Your task to perform on an android device: install app "Spotify: Music and Podcasts" Image 0: 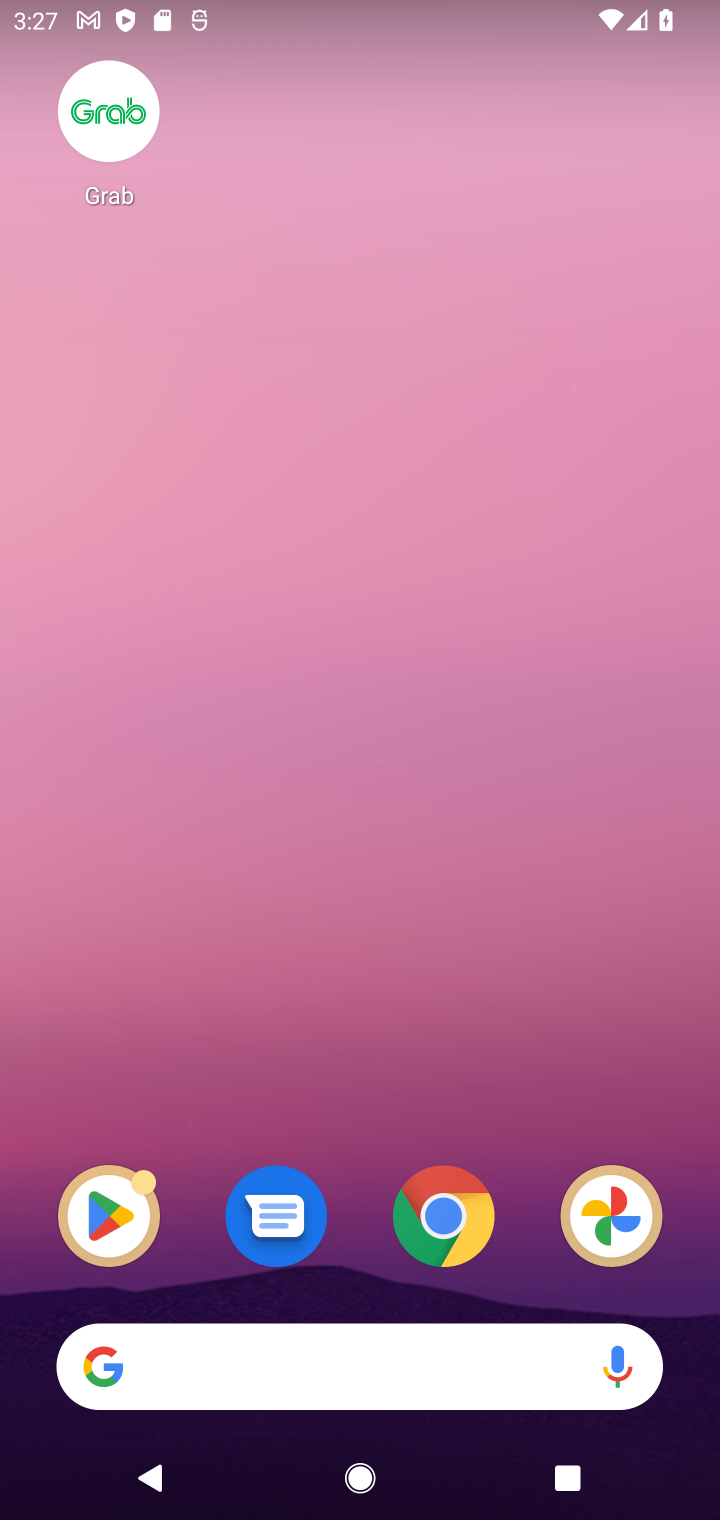
Step 0: drag from (482, 1362) to (414, 232)
Your task to perform on an android device: install app "Spotify: Music and Podcasts" Image 1: 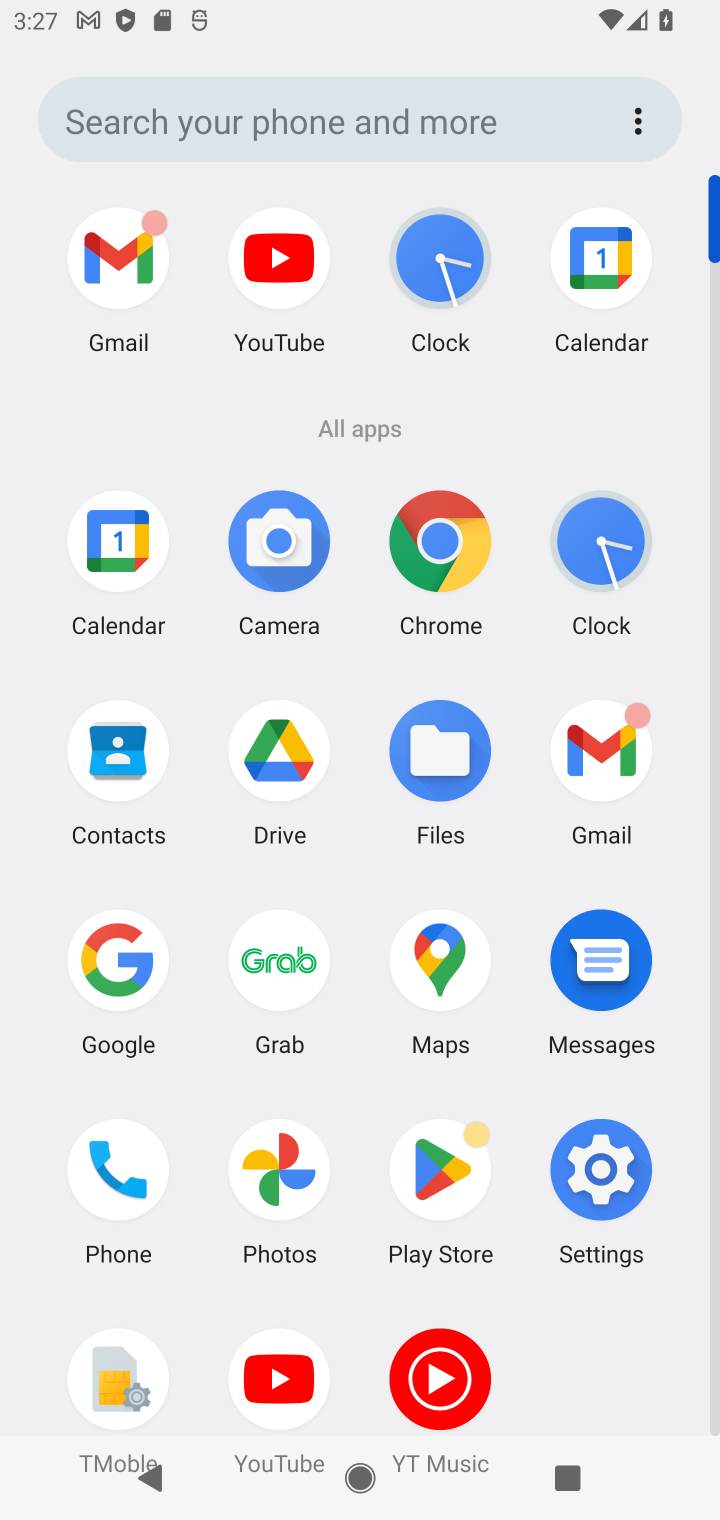
Step 1: click (459, 1197)
Your task to perform on an android device: install app "Spotify: Music and Podcasts" Image 2: 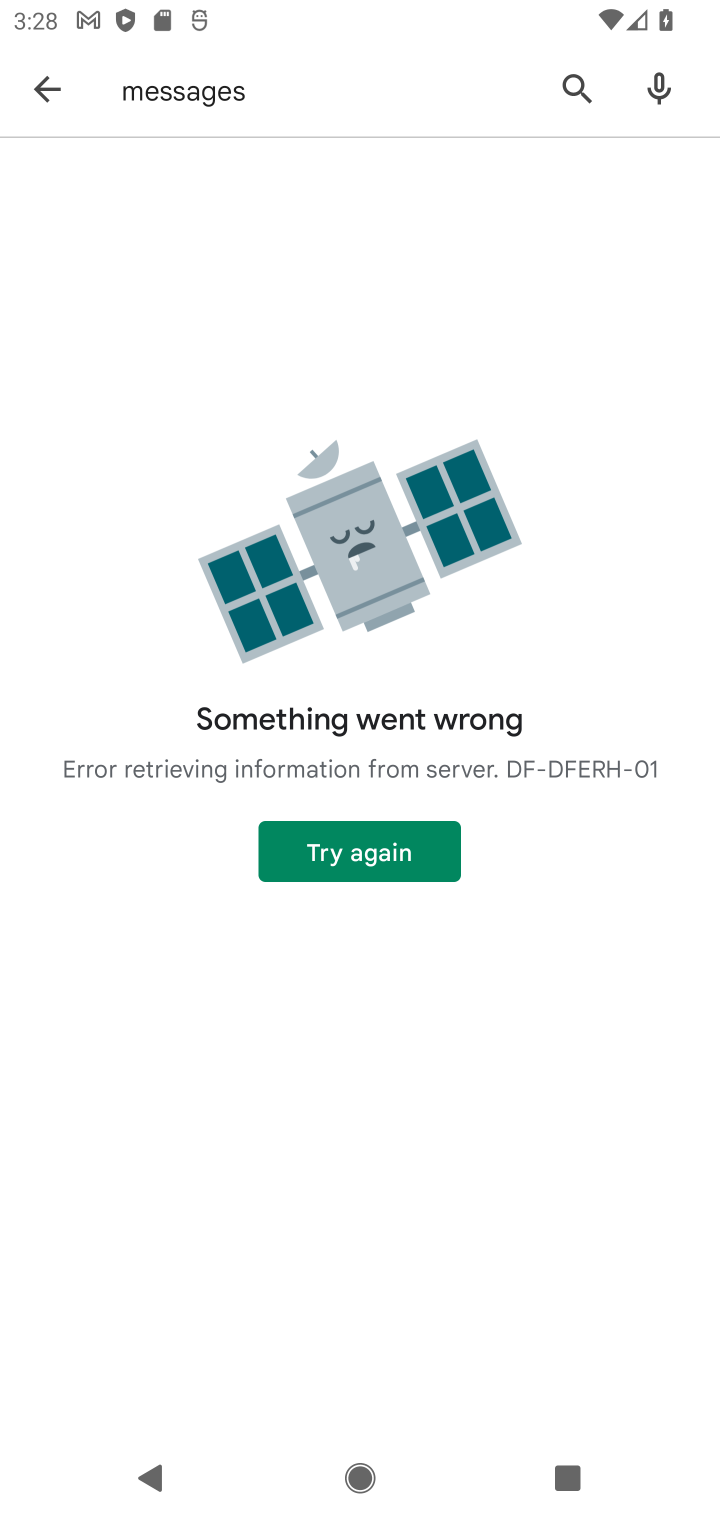
Step 2: press back button
Your task to perform on an android device: install app "Spotify: Music and Podcasts" Image 3: 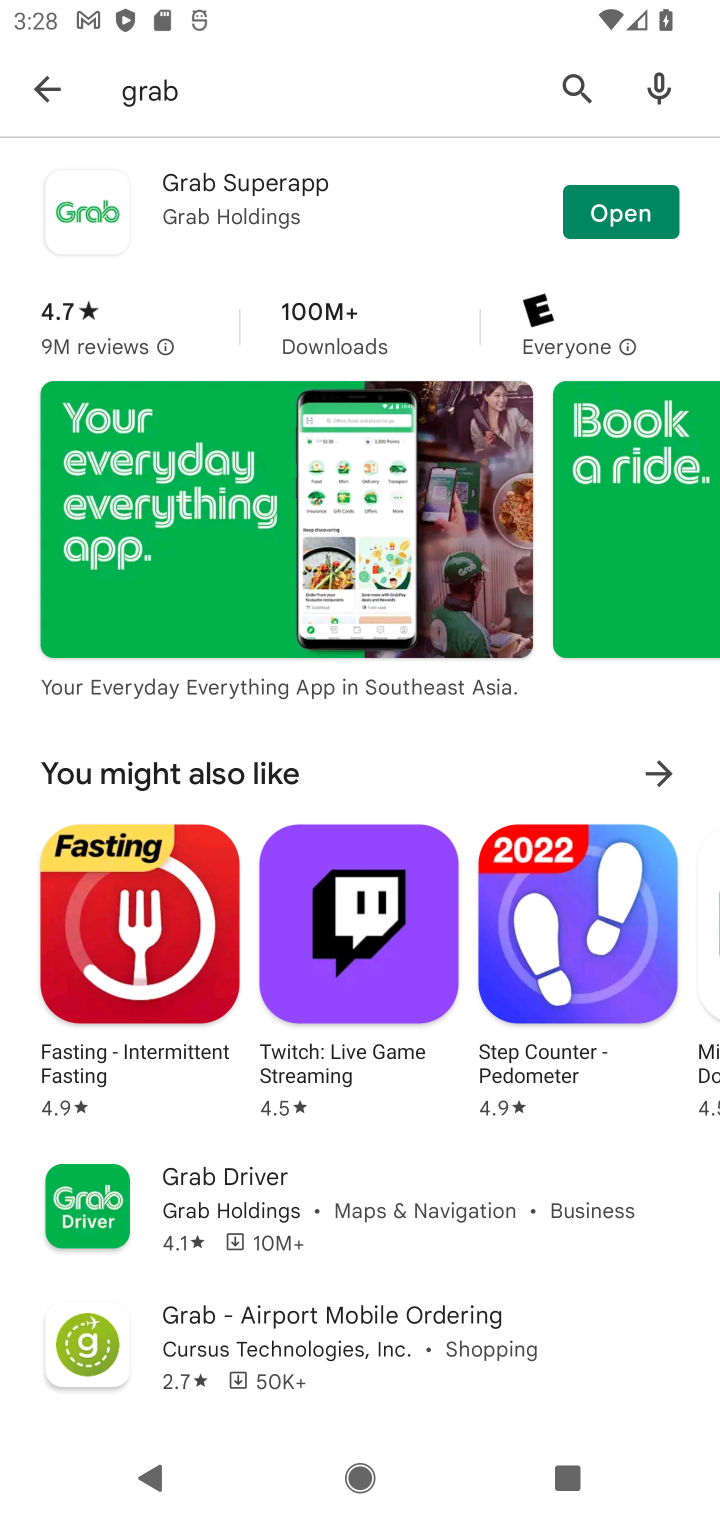
Step 3: click (576, 101)
Your task to perform on an android device: install app "Spotify: Music and Podcasts" Image 4: 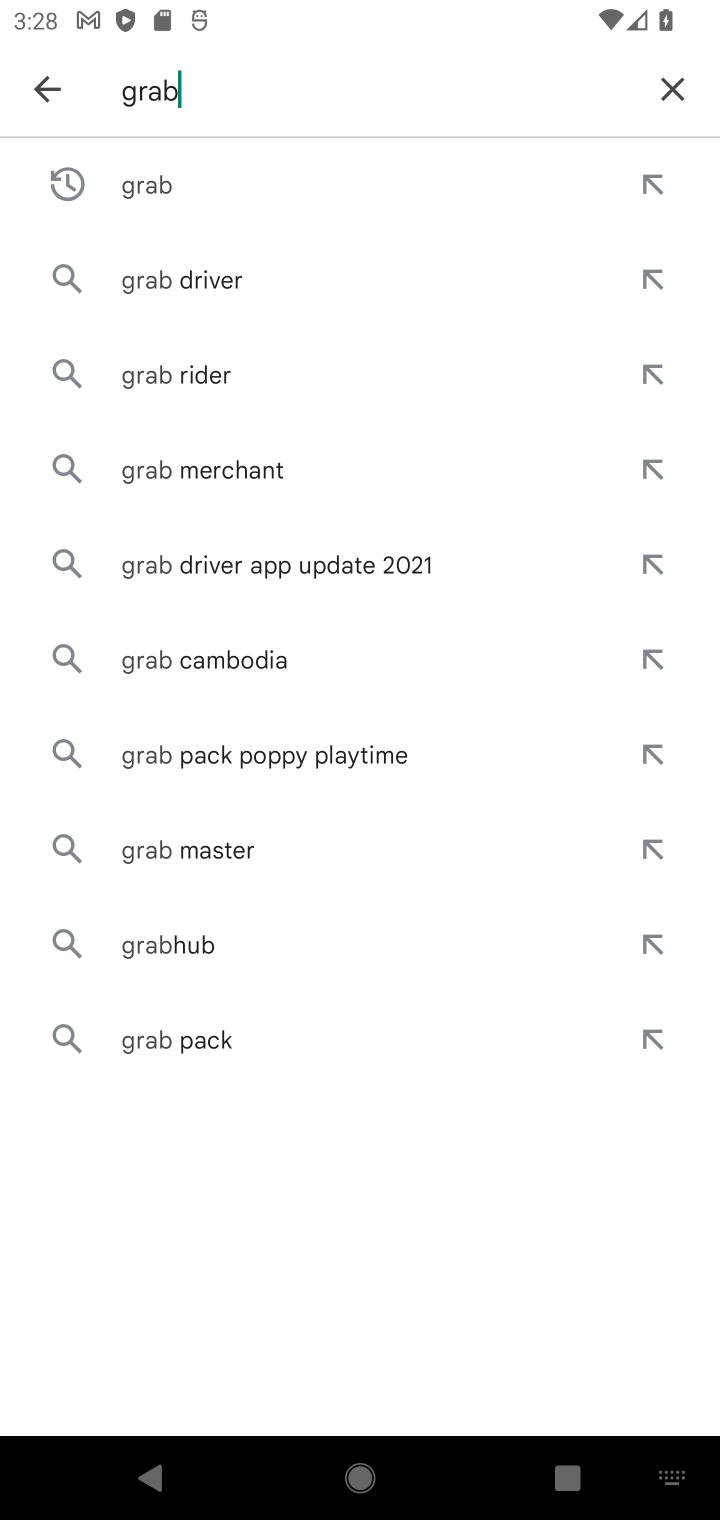
Step 4: click (658, 79)
Your task to perform on an android device: install app "Spotify: Music and Podcasts" Image 5: 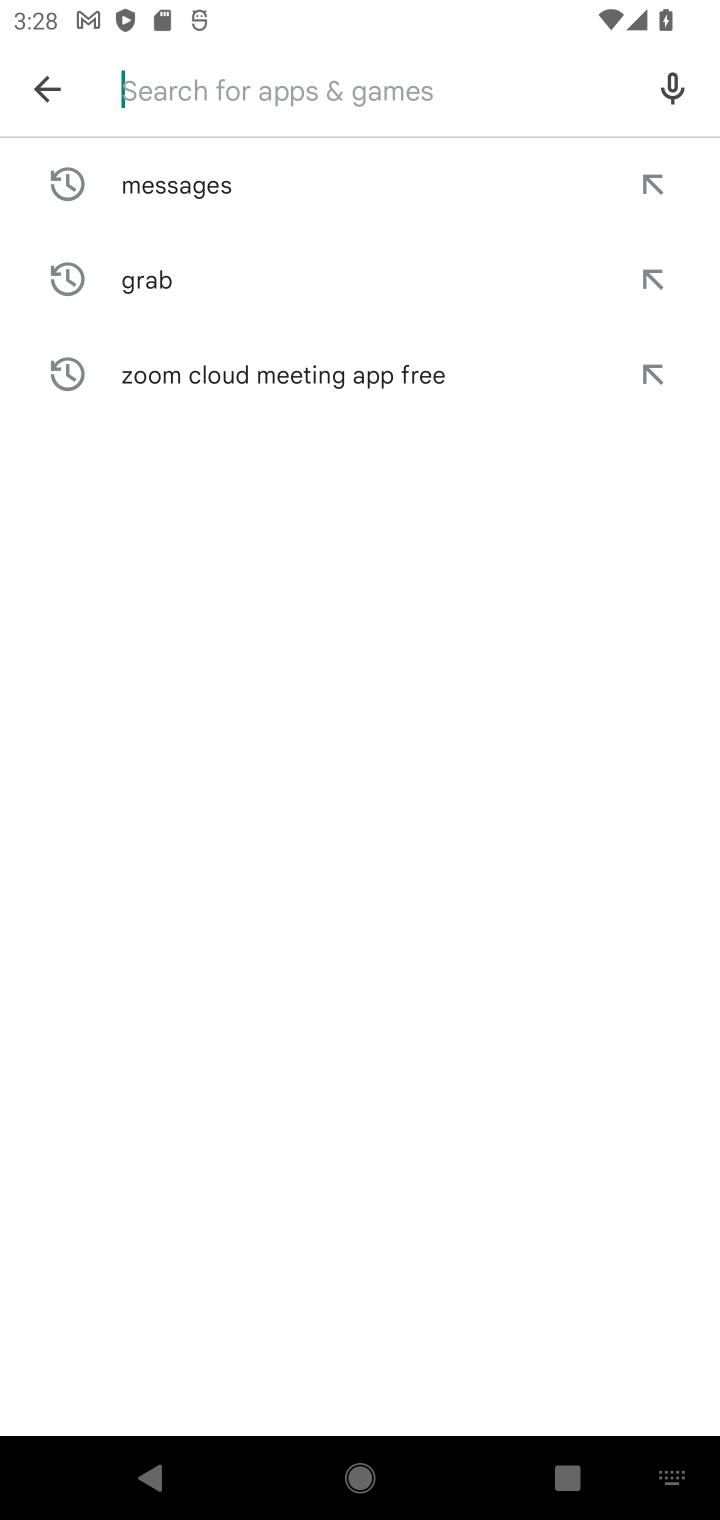
Step 5: type "spotify: musoc and podcasts"
Your task to perform on an android device: install app "Spotify: Music and Podcasts" Image 6: 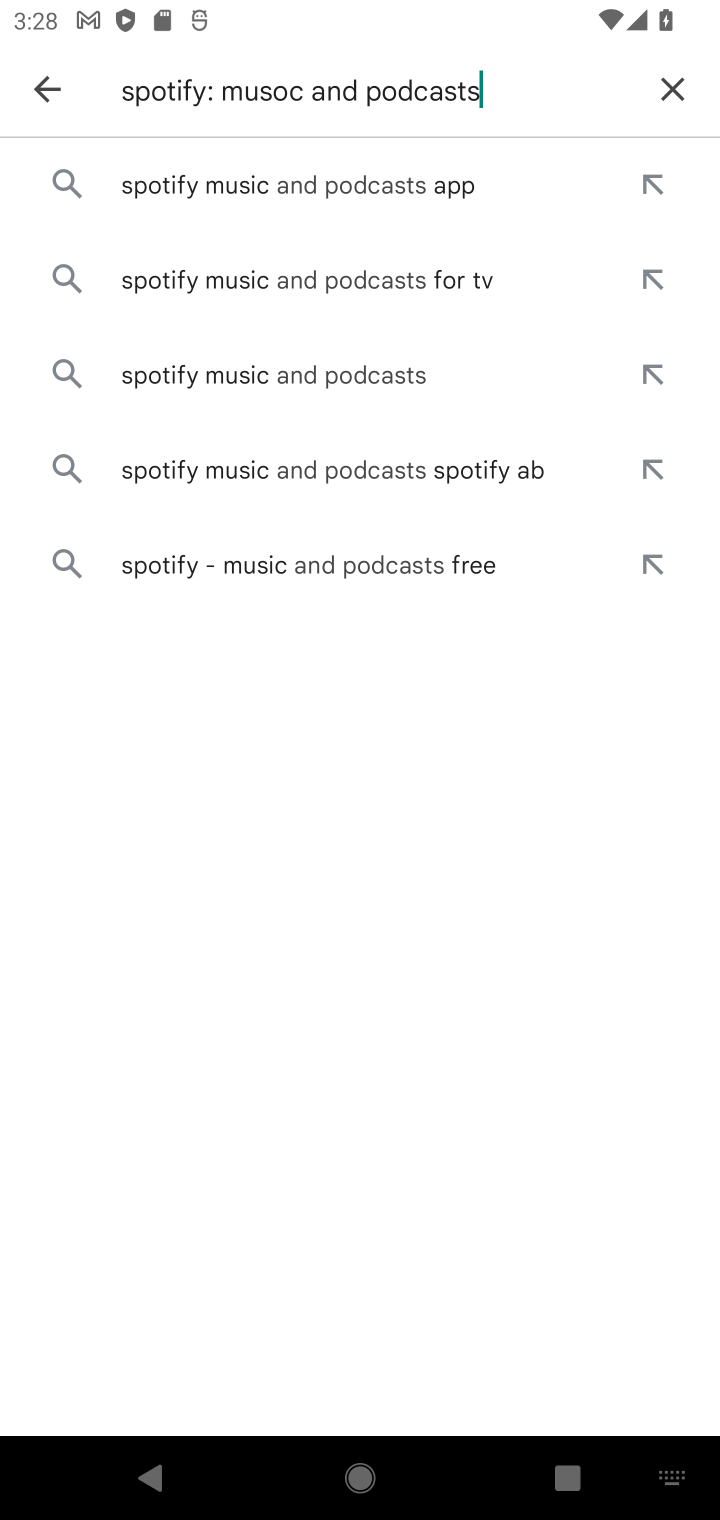
Step 6: click (453, 172)
Your task to perform on an android device: install app "Spotify: Music and Podcasts" Image 7: 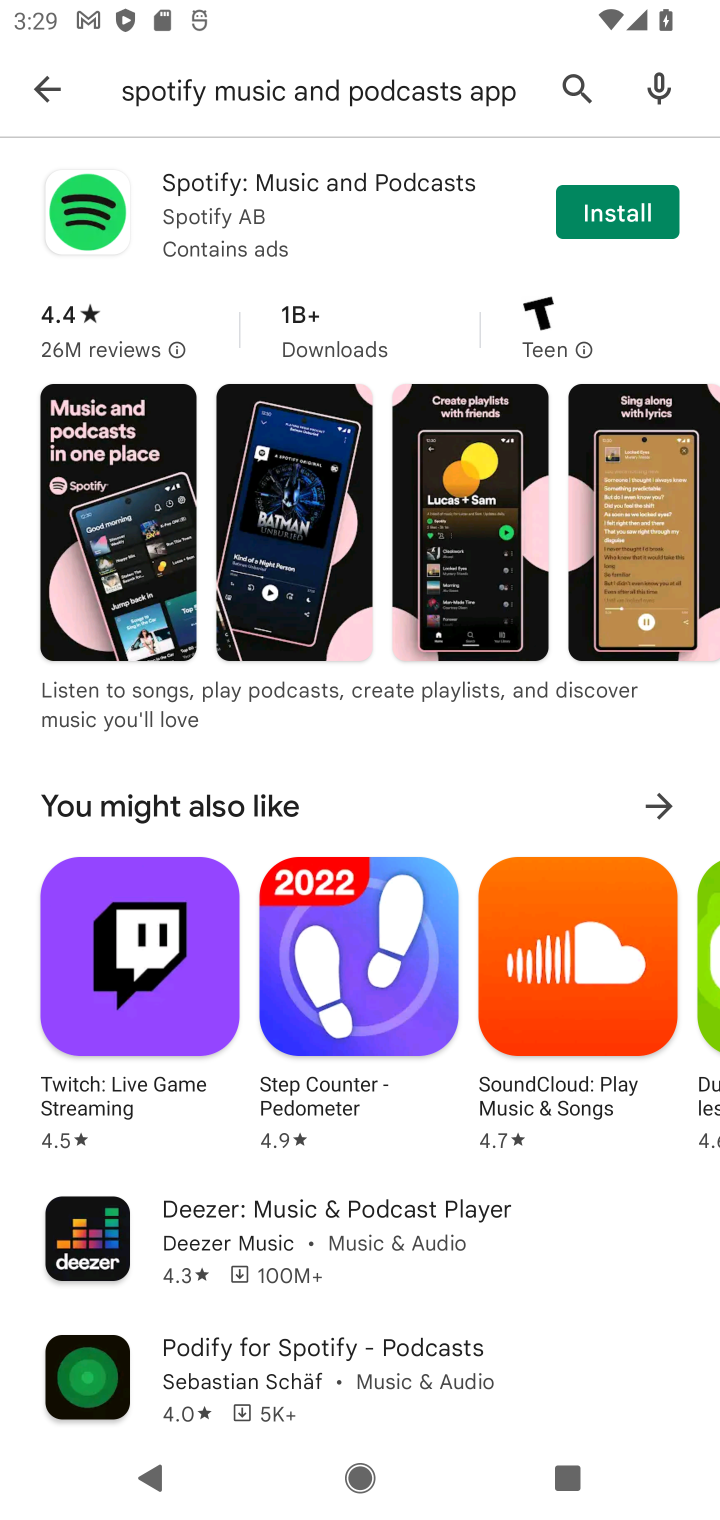
Step 7: click (680, 216)
Your task to perform on an android device: install app "Spotify: Music and Podcasts" Image 8: 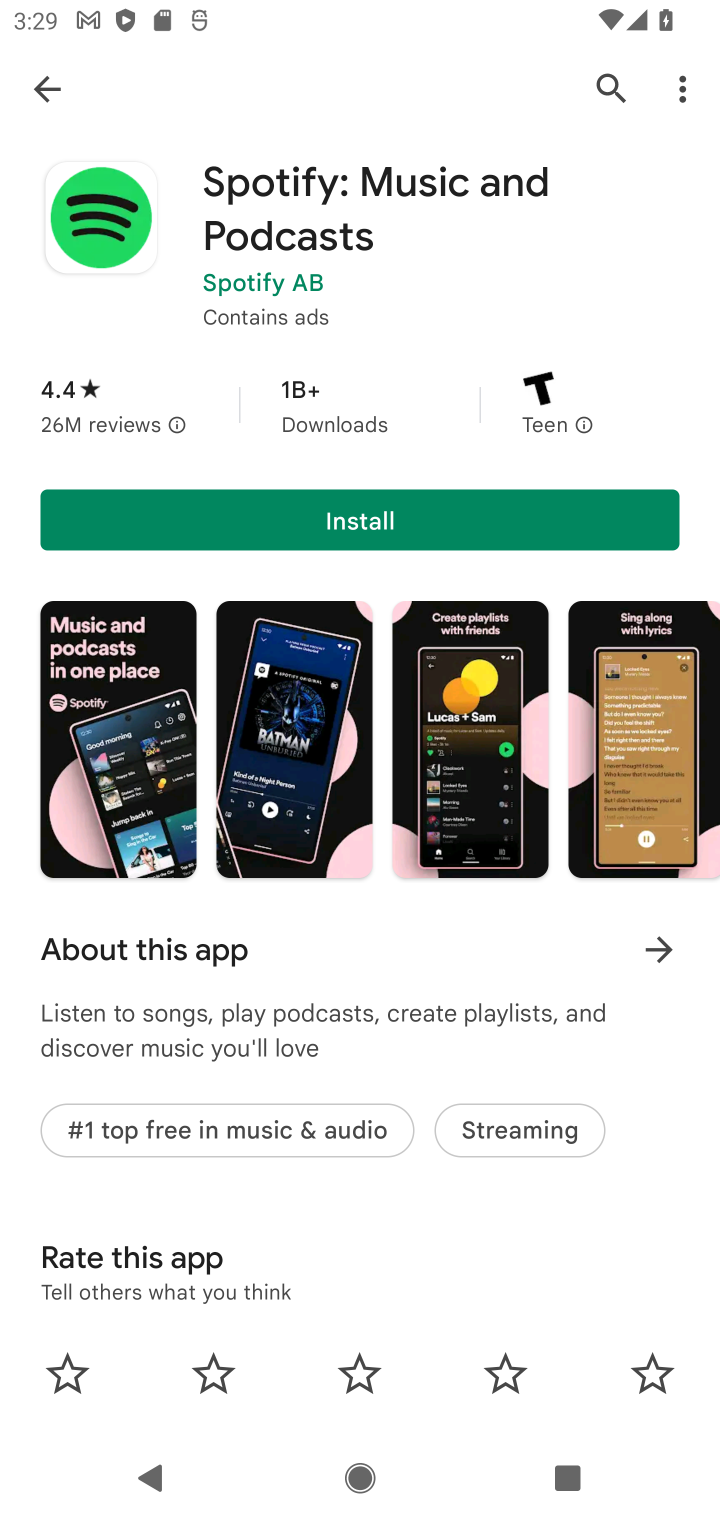
Step 8: click (303, 526)
Your task to perform on an android device: install app "Spotify: Music and Podcasts" Image 9: 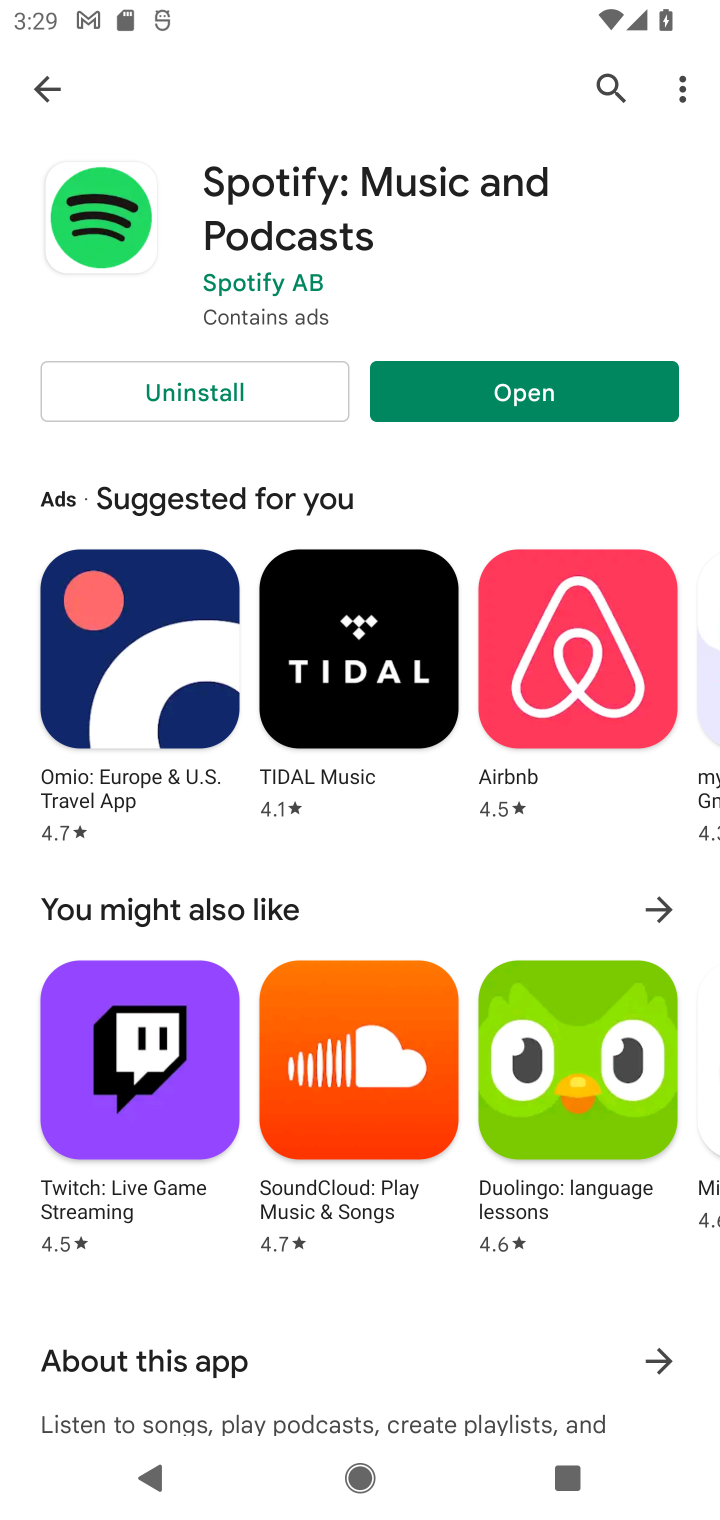
Step 9: task complete